Your task to perform on an android device: open sync settings in chrome Image 0: 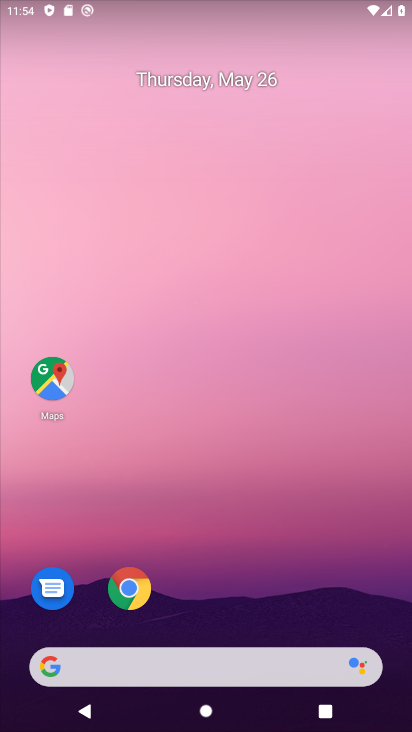
Step 0: click (119, 591)
Your task to perform on an android device: open sync settings in chrome Image 1: 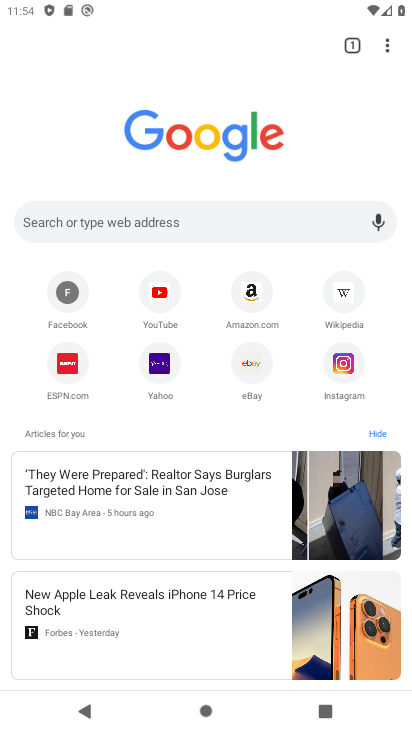
Step 1: click (388, 41)
Your task to perform on an android device: open sync settings in chrome Image 2: 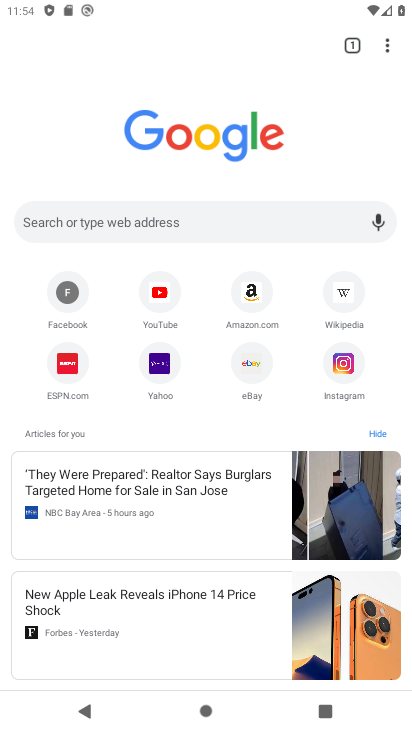
Step 2: click (385, 43)
Your task to perform on an android device: open sync settings in chrome Image 3: 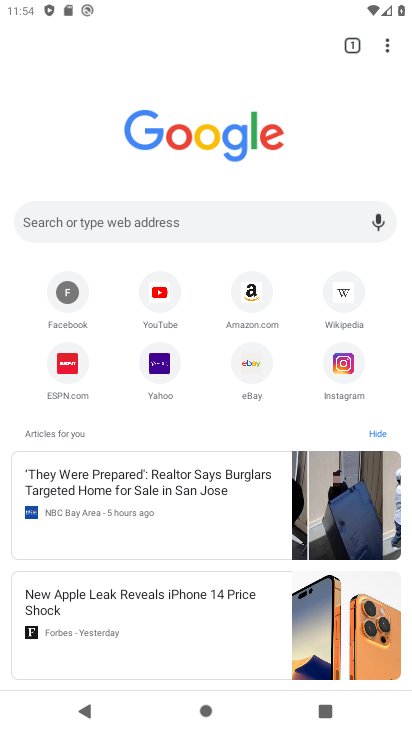
Step 3: click (382, 43)
Your task to perform on an android device: open sync settings in chrome Image 4: 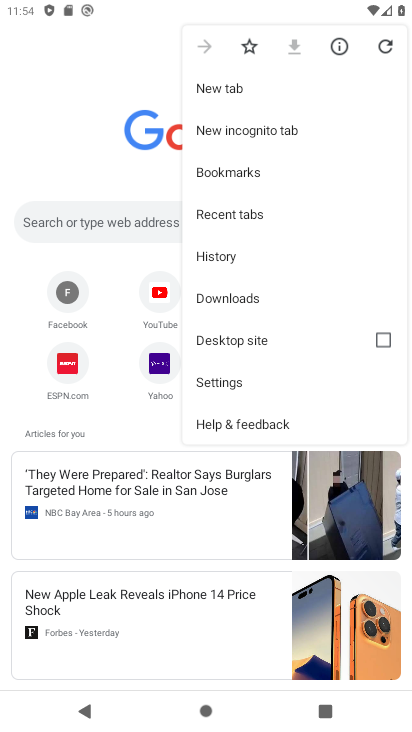
Step 4: click (230, 383)
Your task to perform on an android device: open sync settings in chrome Image 5: 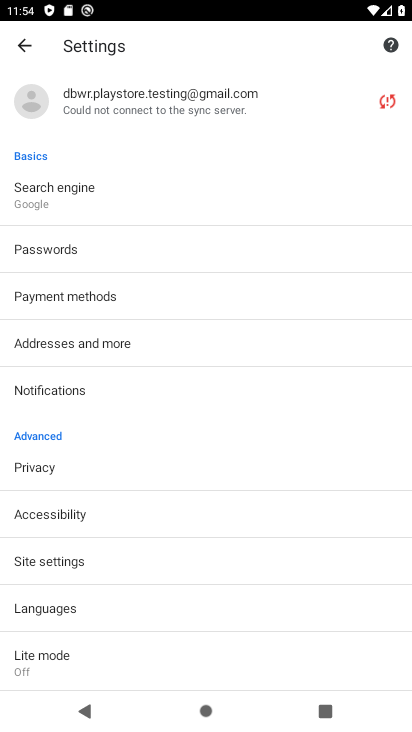
Step 5: click (98, 89)
Your task to perform on an android device: open sync settings in chrome Image 6: 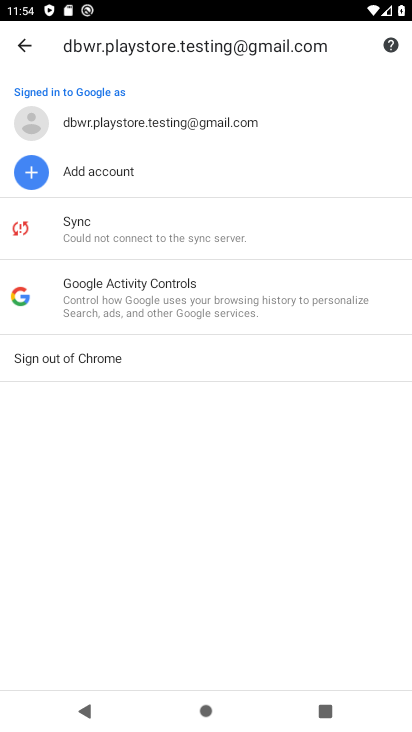
Step 6: click (129, 235)
Your task to perform on an android device: open sync settings in chrome Image 7: 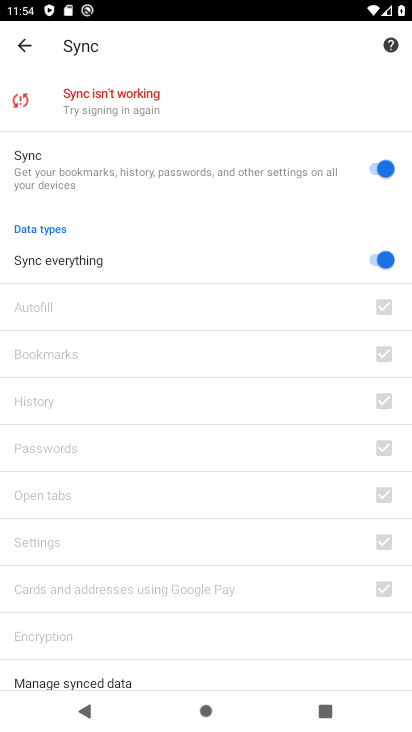
Step 7: task complete